Your task to perform on an android device: Open privacy settings Image 0: 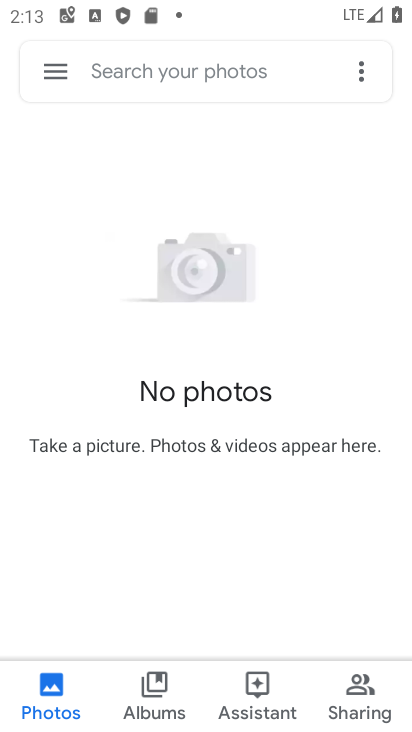
Step 0: press home button
Your task to perform on an android device: Open privacy settings Image 1: 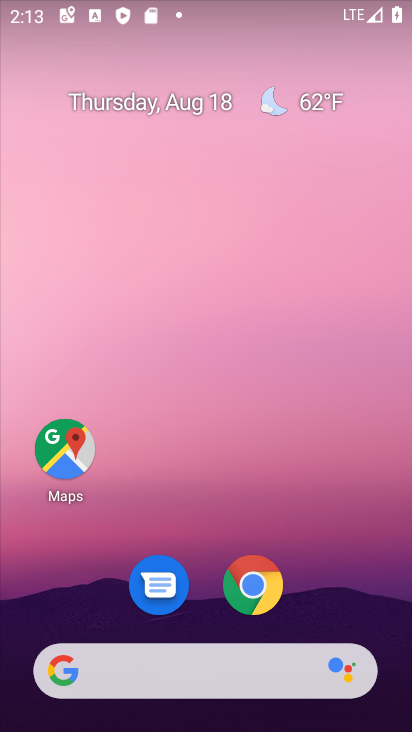
Step 1: drag from (207, 509) to (258, 0)
Your task to perform on an android device: Open privacy settings Image 2: 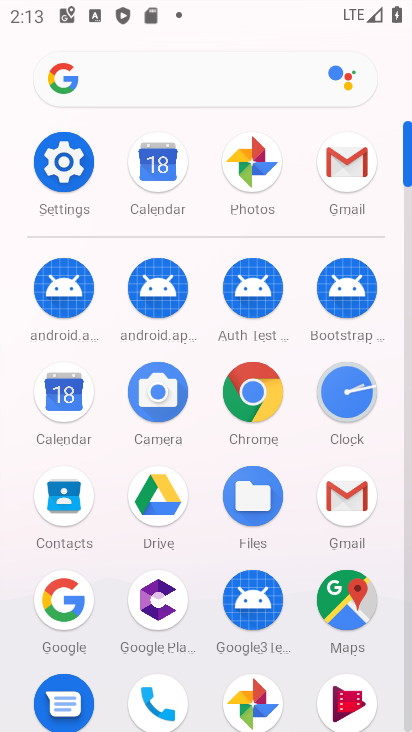
Step 2: click (68, 164)
Your task to perform on an android device: Open privacy settings Image 3: 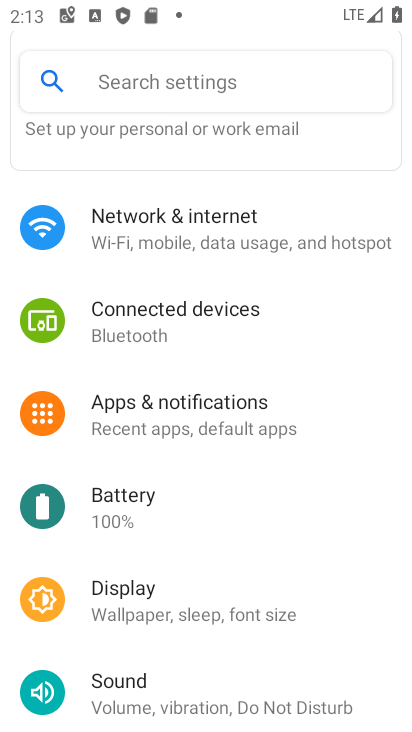
Step 3: drag from (221, 477) to (270, 25)
Your task to perform on an android device: Open privacy settings Image 4: 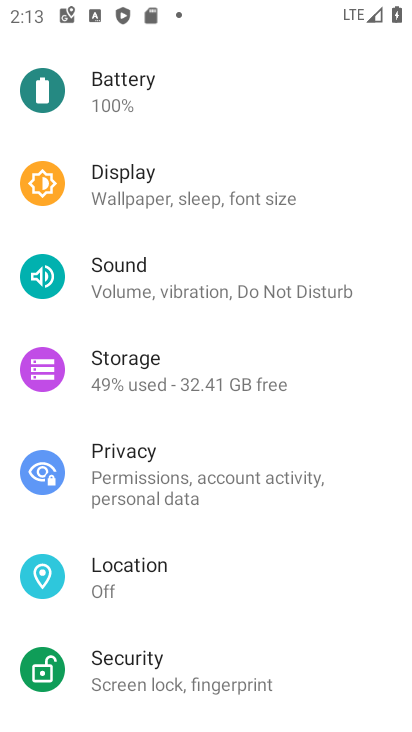
Step 4: click (190, 459)
Your task to perform on an android device: Open privacy settings Image 5: 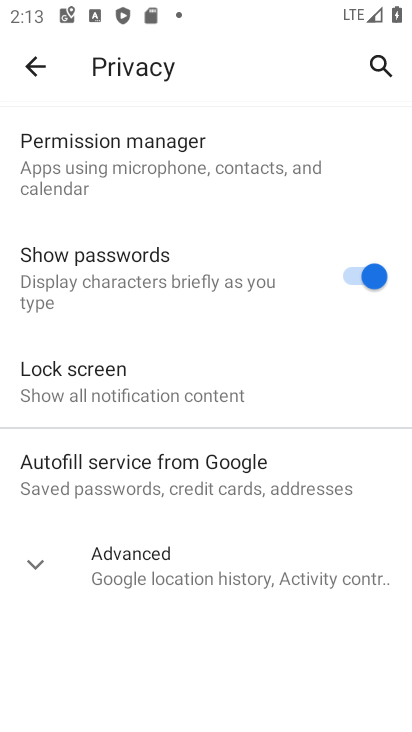
Step 5: click (34, 557)
Your task to perform on an android device: Open privacy settings Image 6: 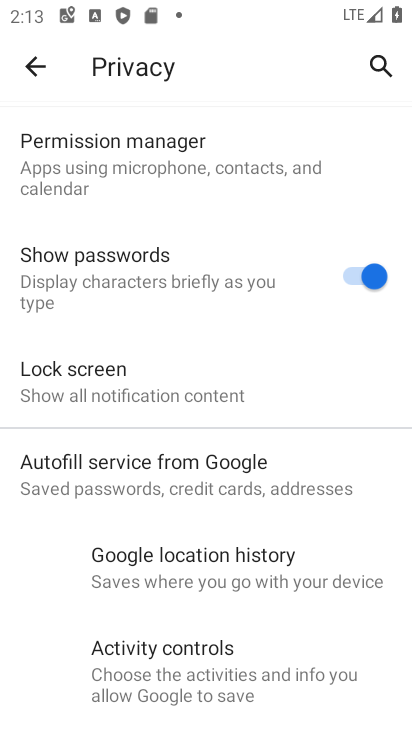
Step 6: task complete